Your task to perform on an android device: Open the calendar app, open the side menu, and click the "Day" option Image 0: 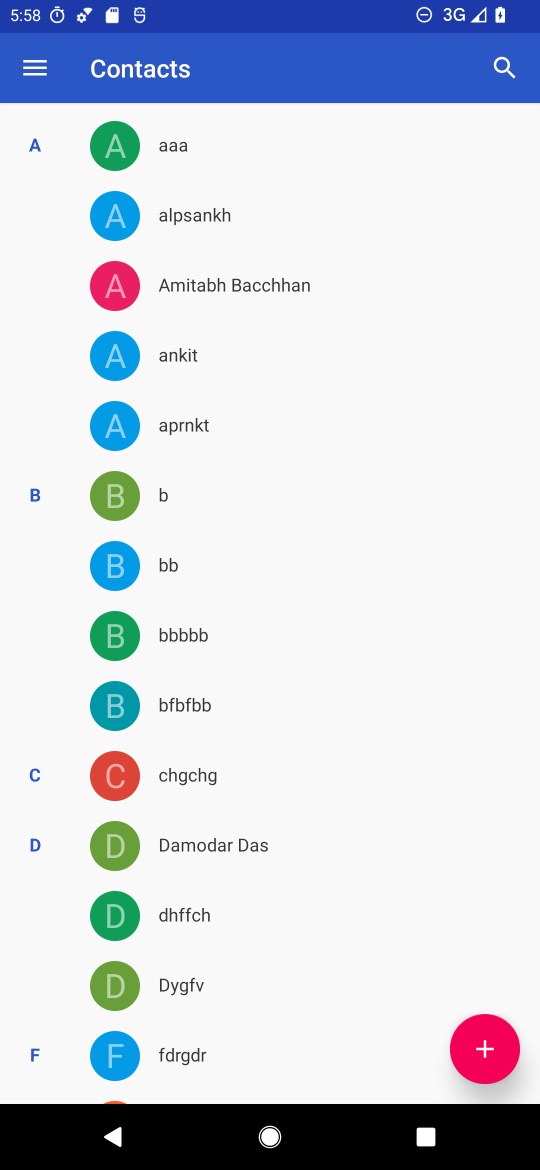
Step 0: press home button
Your task to perform on an android device: Open the calendar app, open the side menu, and click the "Day" option Image 1: 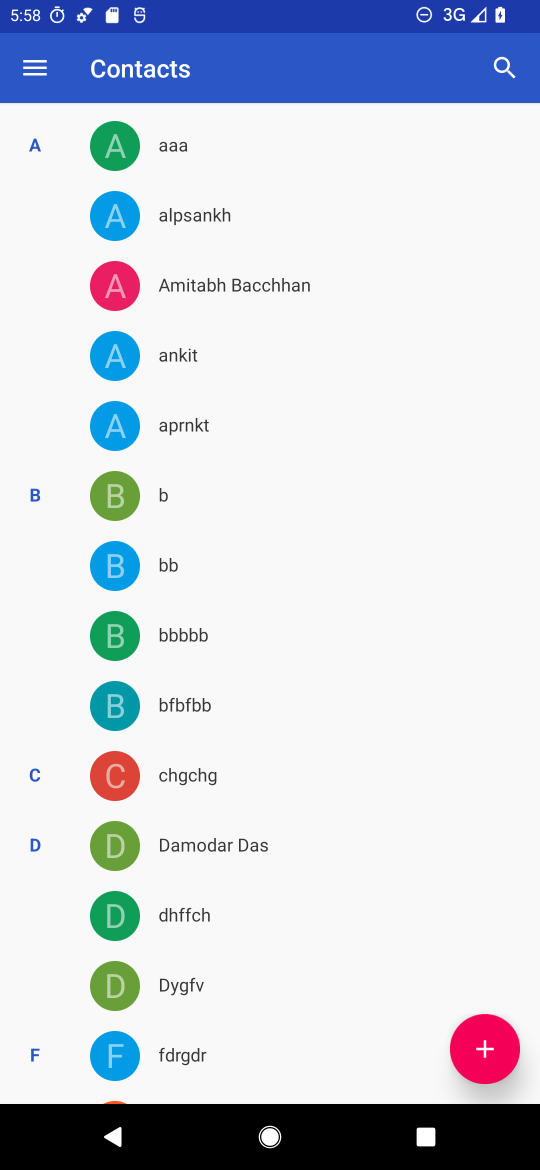
Step 1: press home button
Your task to perform on an android device: Open the calendar app, open the side menu, and click the "Day" option Image 2: 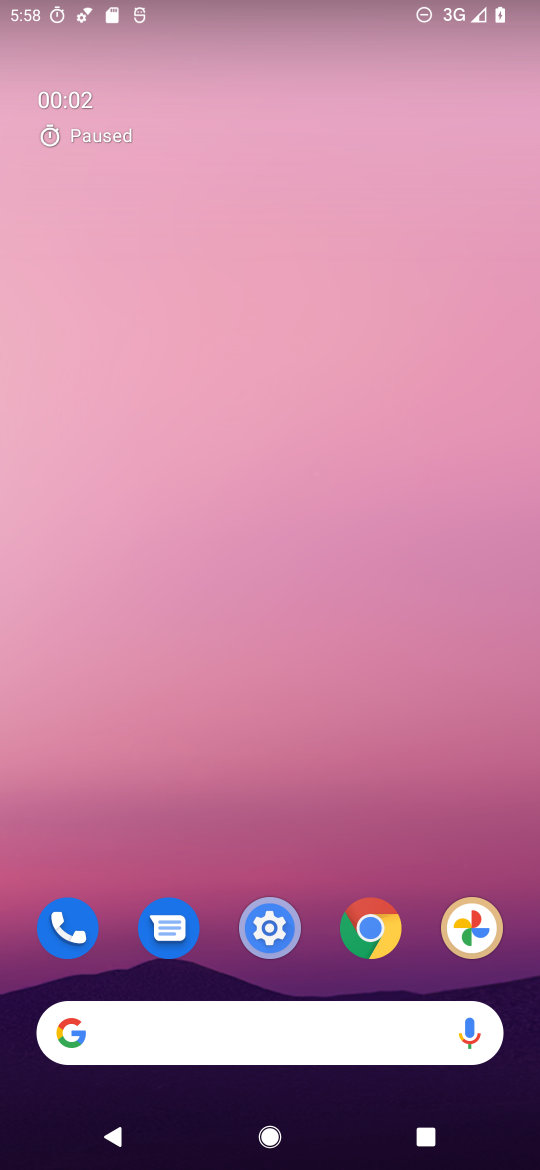
Step 2: drag from (318, 846) to (350, 167)
Your task to perform on an android device: Open the calendar app, open the side menu, and click the "Day" option Image 3: 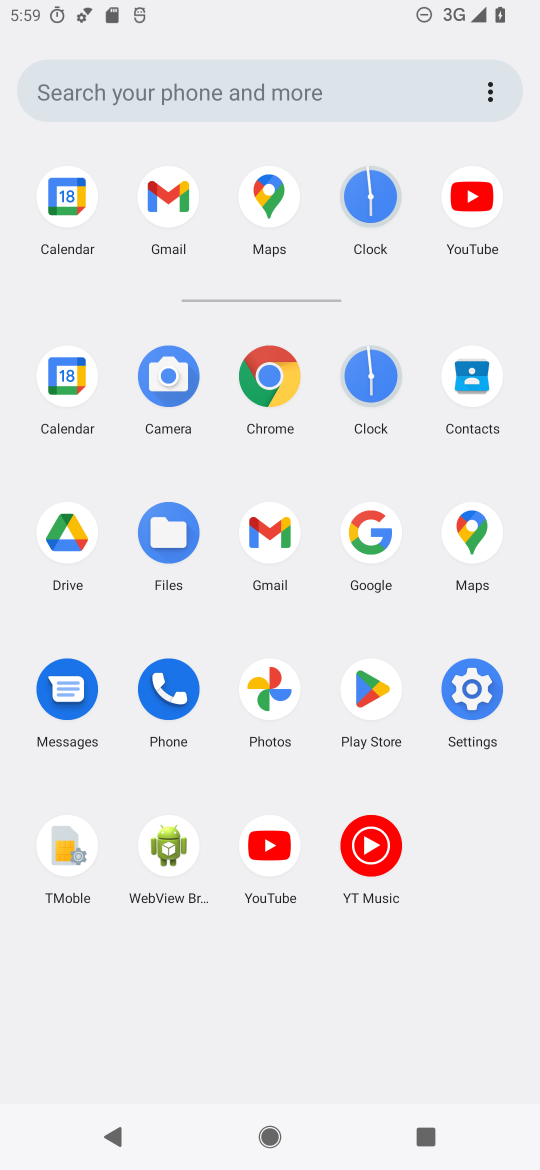
Step 3: click (59, 380)
Your task to perform on an android device: Open the calendar app, open the side menu, and click the "Day" option Image 4: 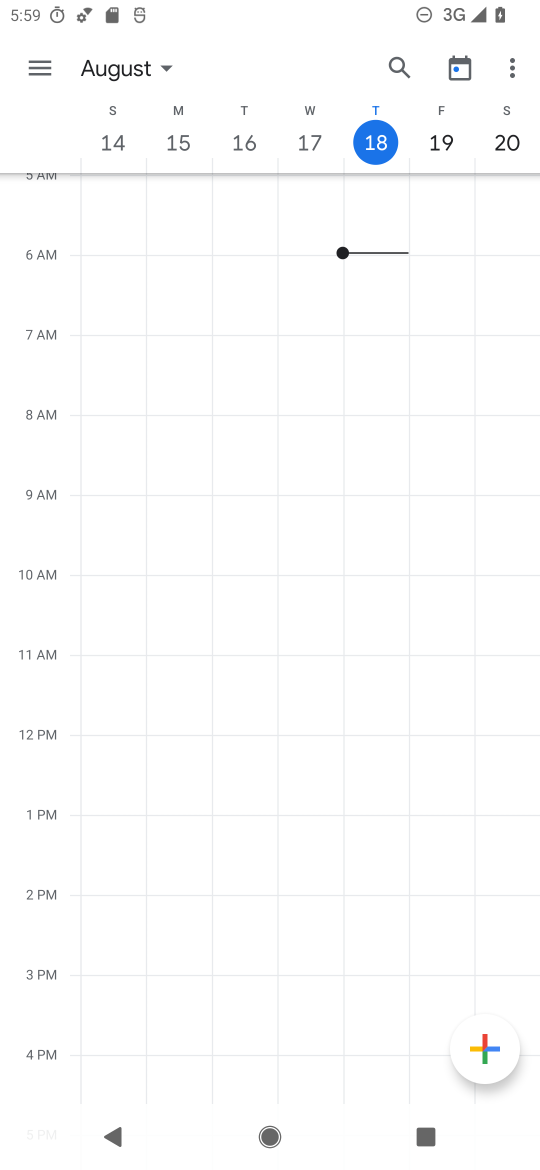
Step 4: click (36, 61)
Your task to perform on an android device: Open the calendar app, open the side menu, and click the "Day" option Image 5: 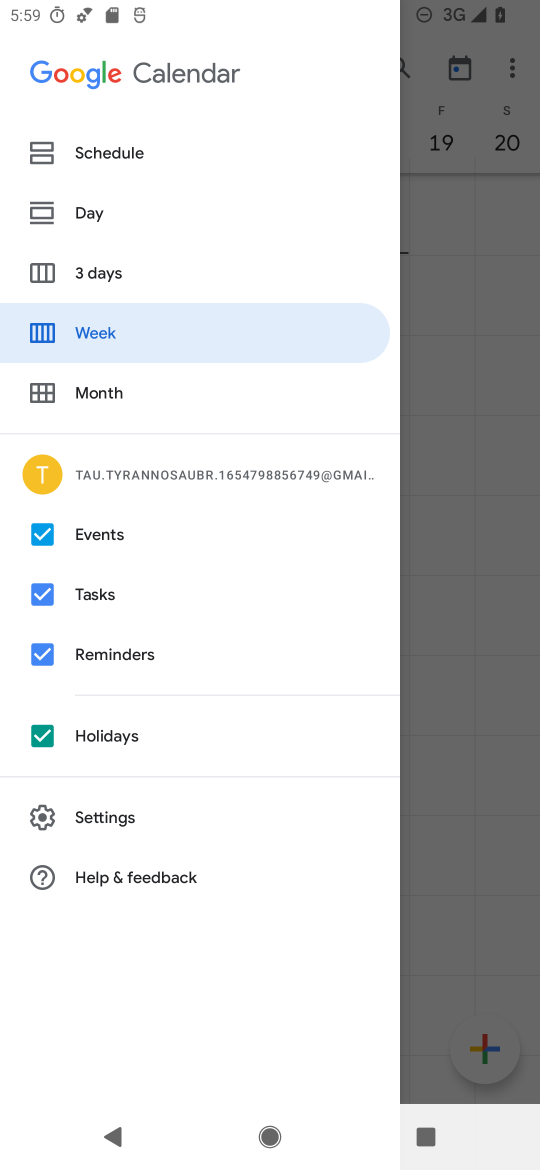
Step 5: click (139, 208)
Your task to perform on an android device: Open the calendar app, open the side menu, and click the "Day" option Image 6: 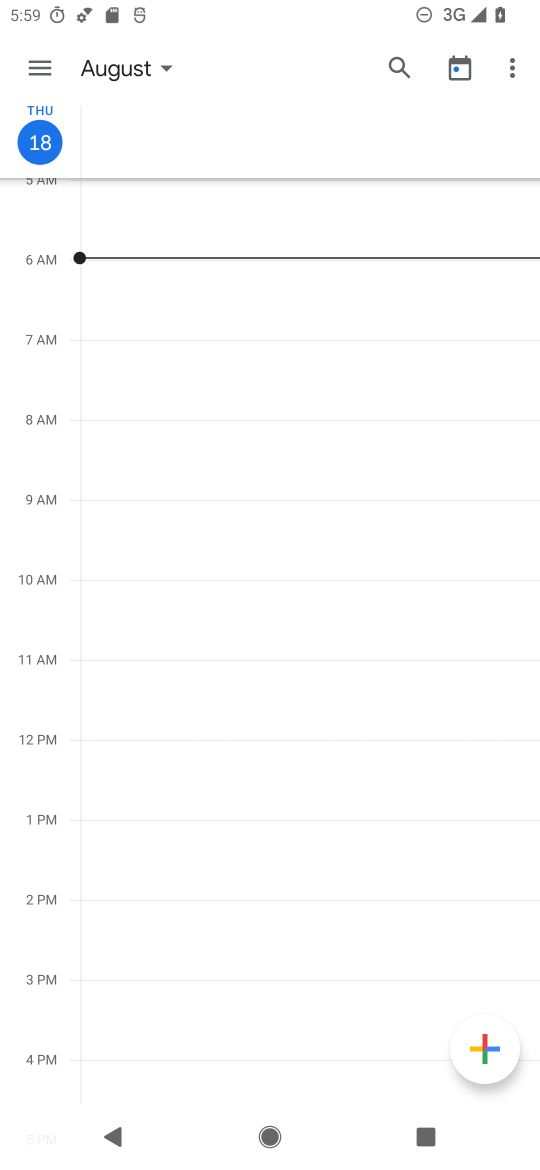
Step 6: task complete